Your task to perform on an android device: Search for sushi restaurants on Maps Image 0: 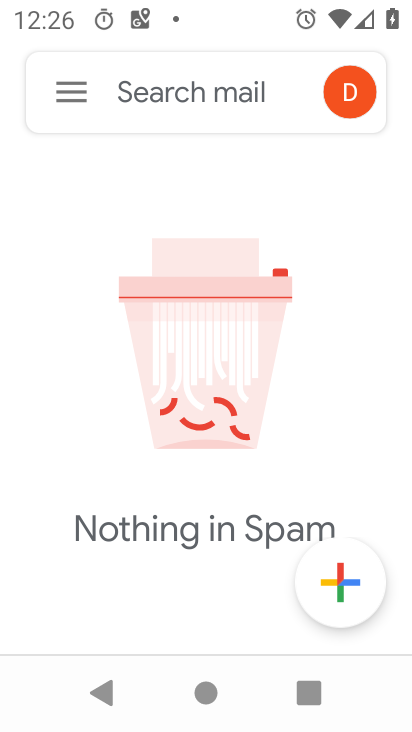
Step 0: press home button
Your task to perform on an android device: Search for sushi restaurants on Maps Image 1: 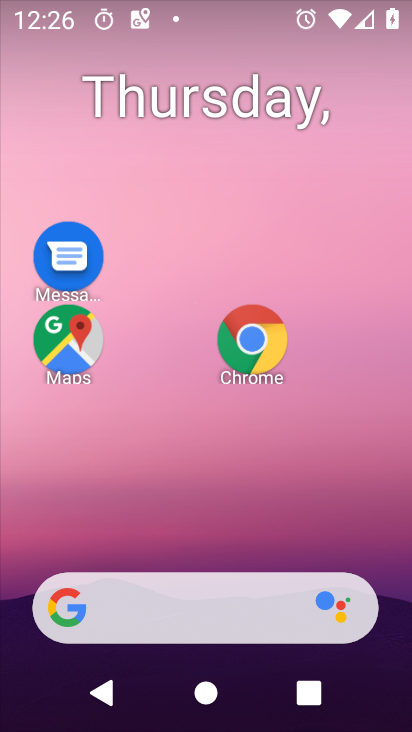
Step 1: click (68, 353)
Your task to perform on an android device: Search for sushi restaurants on Maps Image 2: 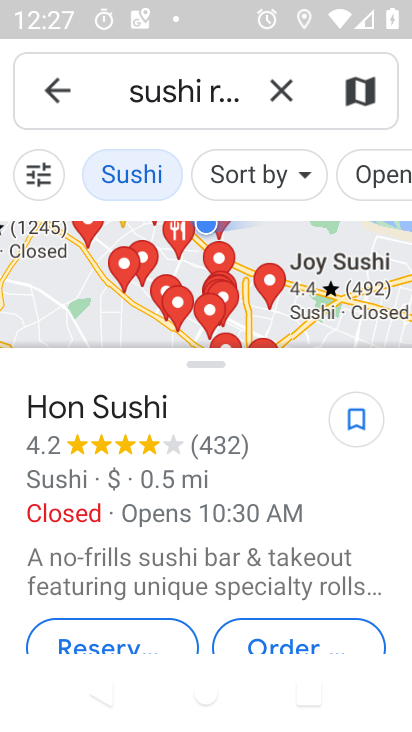
Step 2: task complete